Your task to perform on an android device: turn off location Image 0: 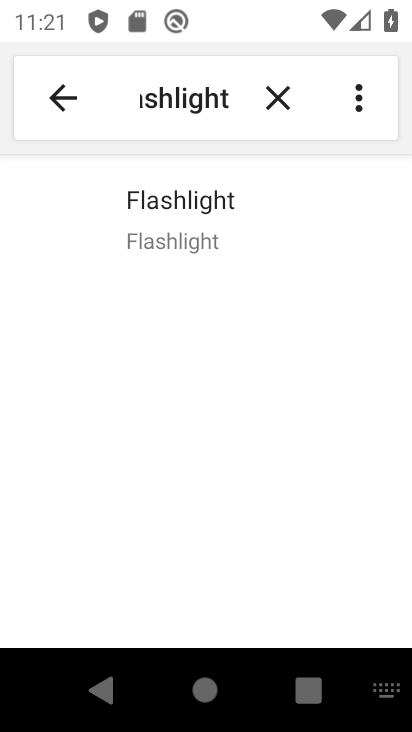
Step 0: press home button
Your task to perform on an android device: turn off location Image 1: 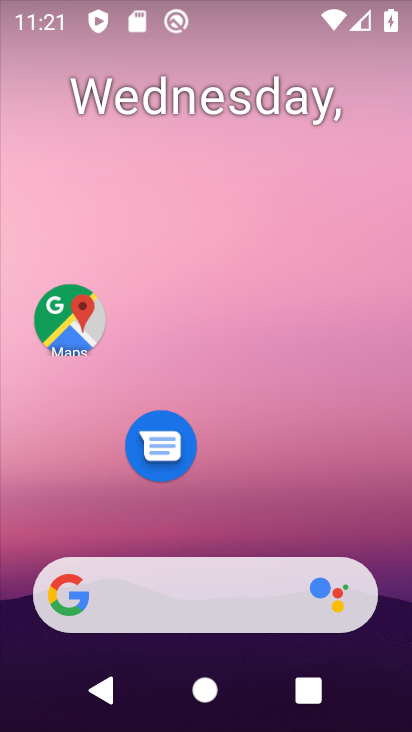
Step 1: drag from (263, 410) to (132, 113)
Your task to perform on an android device: turn off location Image 2: 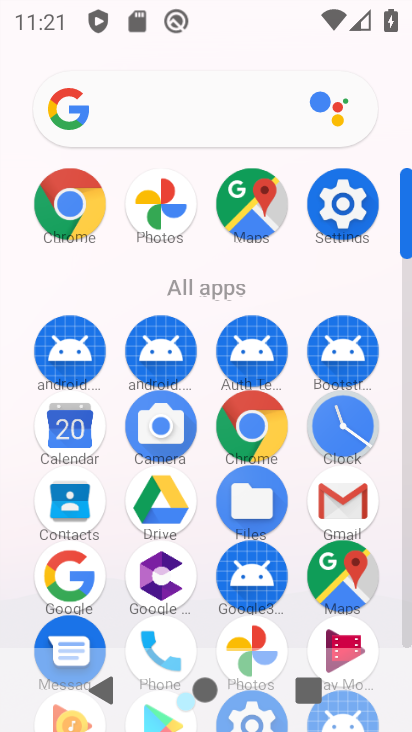
Step 2: click (360, 214)
Your task to perform on an android device: turn off location Image 3: 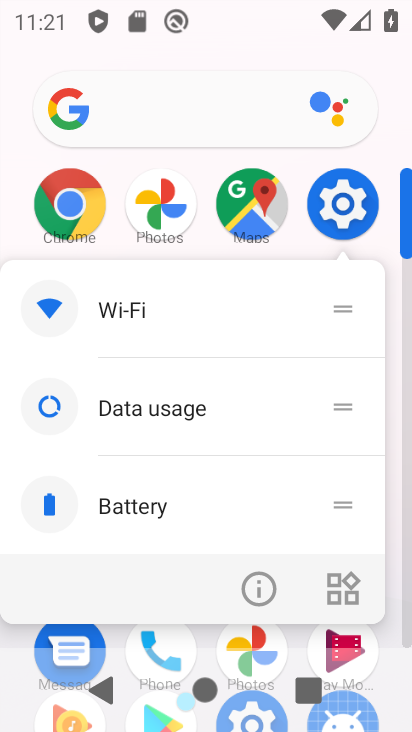
Step 3: click (339, 207)
Your task to perform on an android device: turn off location Image 4: 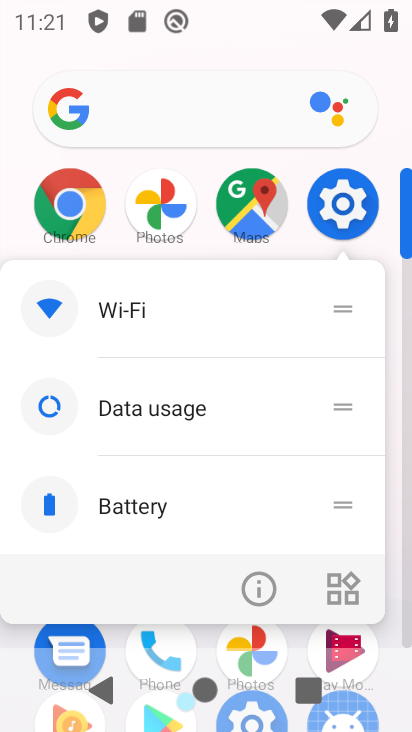
Step 4: click (339, 207)
Your task to perform on an android device: turn off location Image 5: 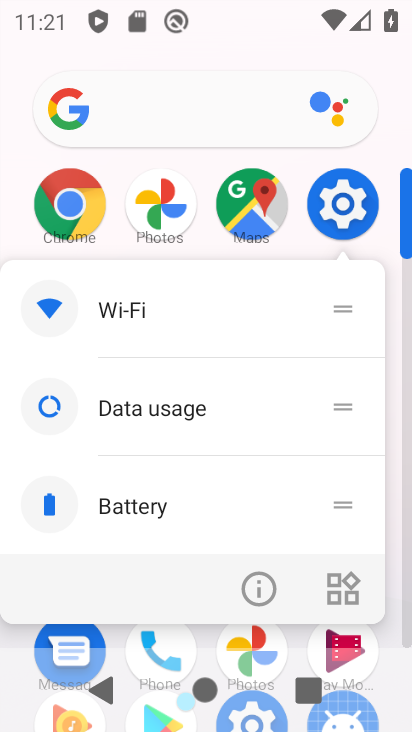
Step 5: click (347, 211)
Your task to perform on an android device: turn off location Image 6: 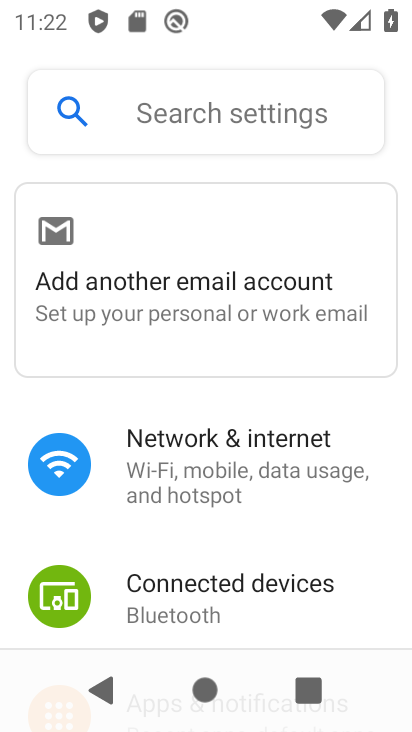
Step 6: drag from (337, 555) to (349, 159)
Your task to perform on an android device: turn off location Image 7: 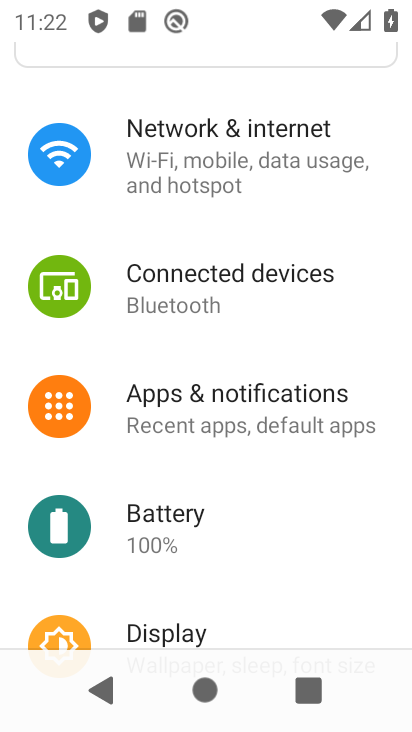
Step 7: drag from (300, 599) to (314, 164)
Your task to perform on an android device: turn off location Image 8: 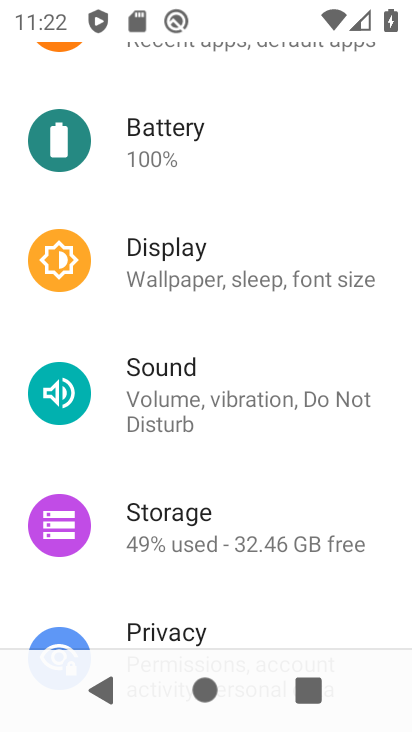
Step 8: drag from (249, 576) to (252, 387)
Your task to perform on an android device: turn off location Image 9: 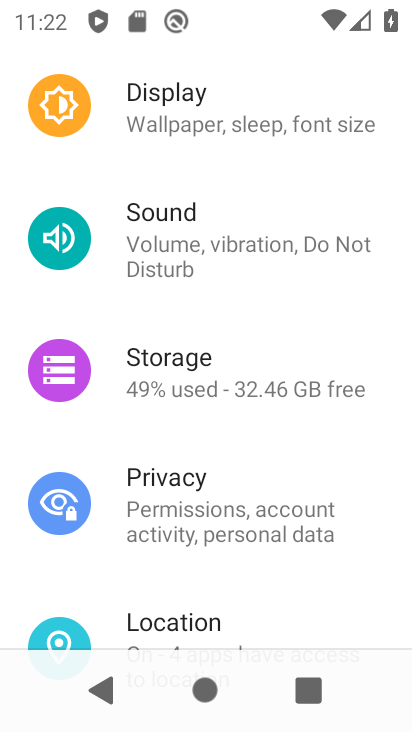
Step 9: click (196, 630)
Your task to perform on an android device: turn off location Image 10: 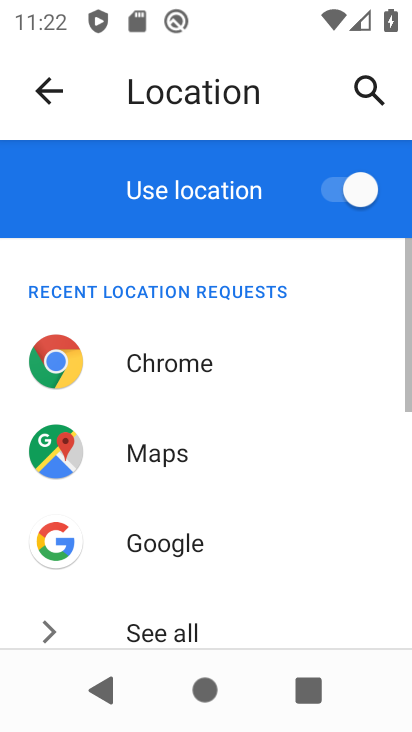
Step 10: click (350, 186)
Your task to perform on an android device: turn off location Image 11: 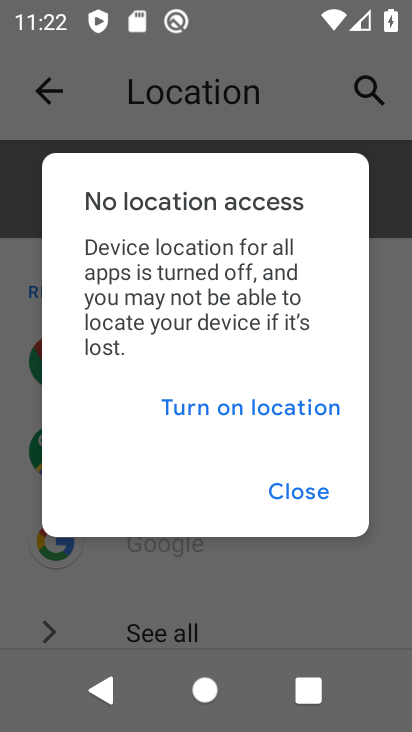
Step 11: task complete